Your task to perform on an android device: Open eBay Image 0: 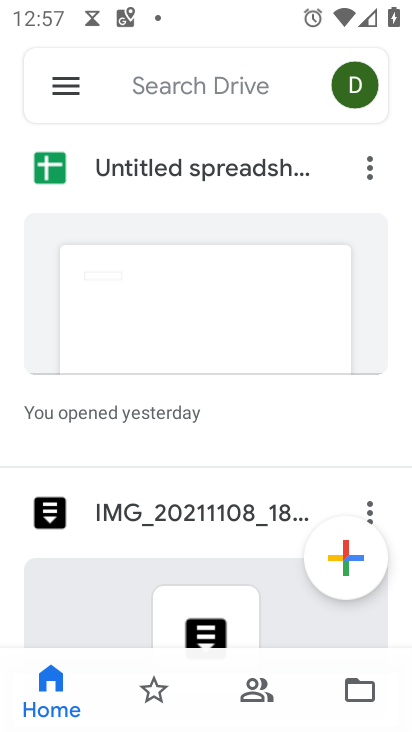
Step 0: press home button
Your task to perform on an android device: Open eBay Image 1: 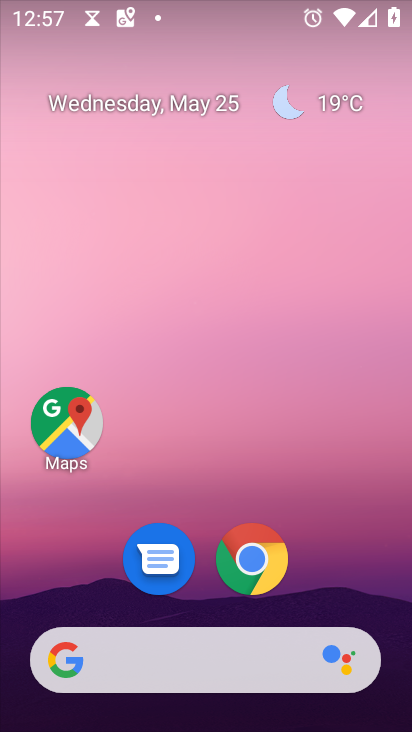
Step 1: drag from (342, 562) to (313, 3)
Your task to perform on an android device: Open eBay Image 2: 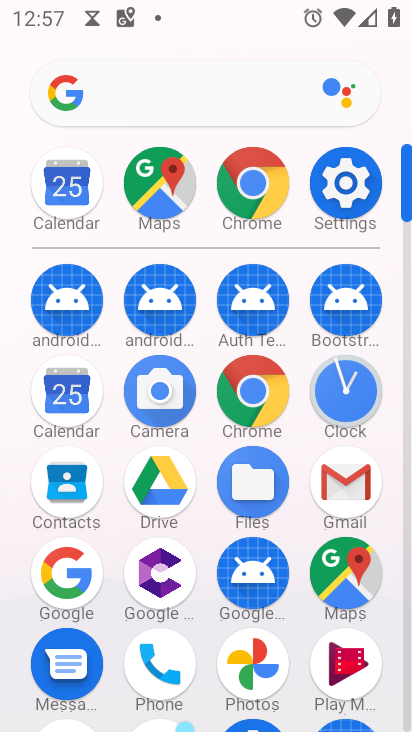
Step 2: click (243, 217)
Your task to perform on an android device: Open eBay Image 3: 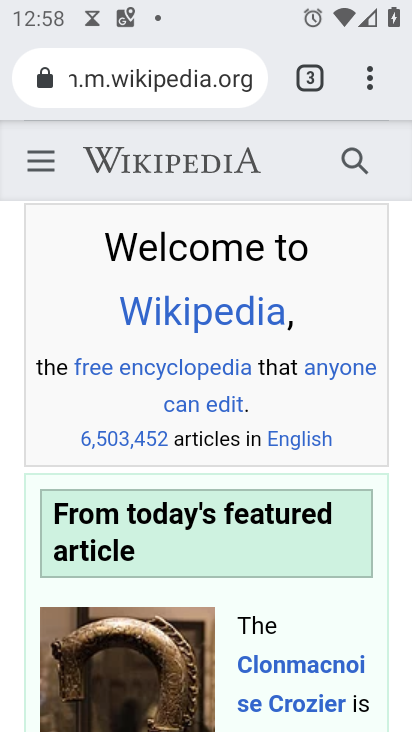
Step 3: click (185, 84)
Your task to perform on an android device: Open eBay Image 4: 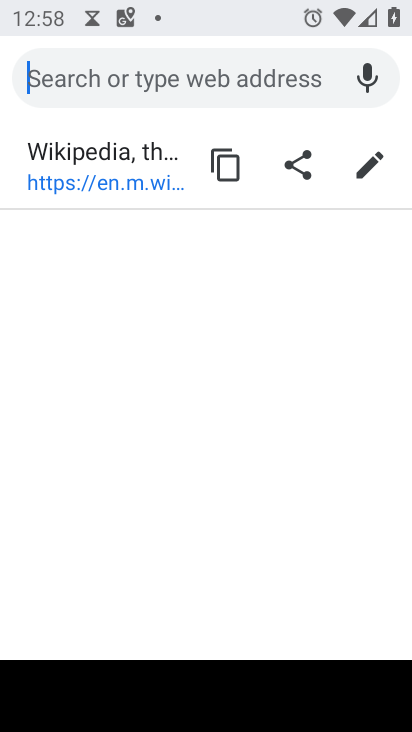
Step 4: type "ebay"
Your task to perform on an android device: Open eBay Image 5: 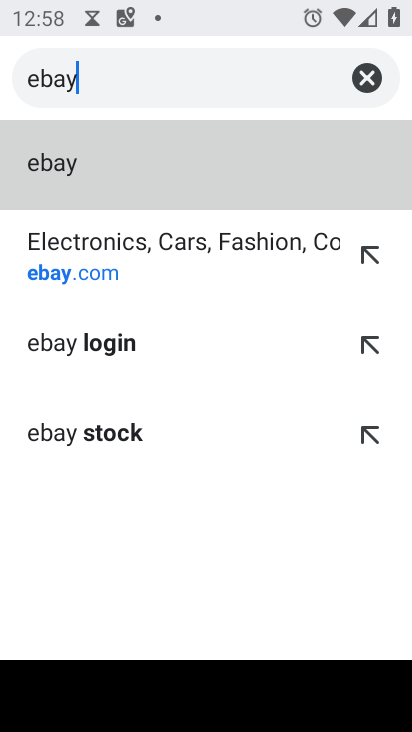
Step 5: click (66, 277)
Your task to perform on an android device: Open eBay Image 6: 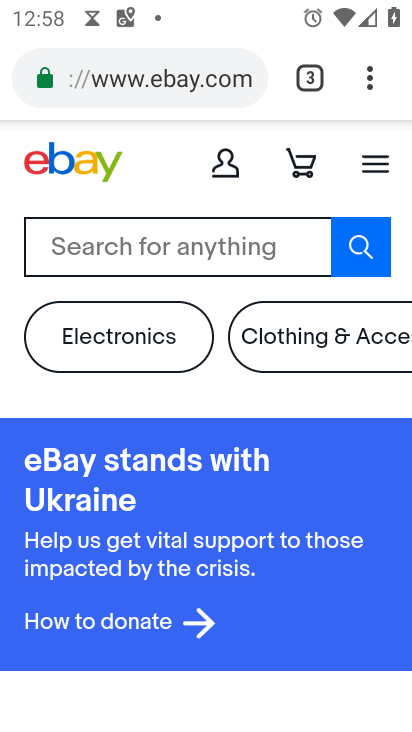
Step 6: task complete